Your task to perform on an android device: What is the news today? Image 0: 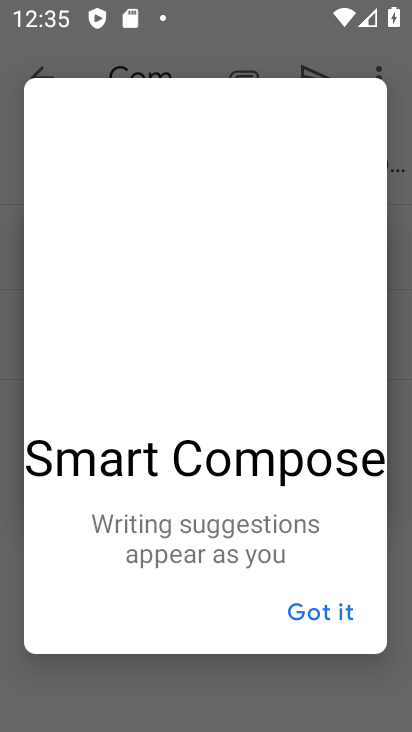
Step 0: press home button
Your task to perform on an android device: What is the news today? Image 1: 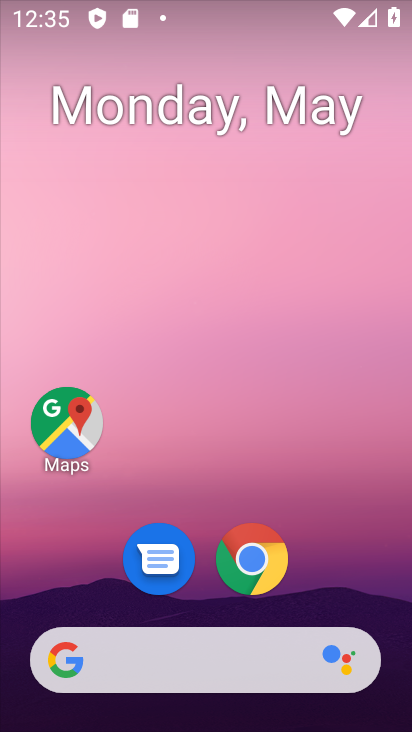
Step 1: click (288, 642)
Your task to perform on an android device: What is the news today? Image 2: 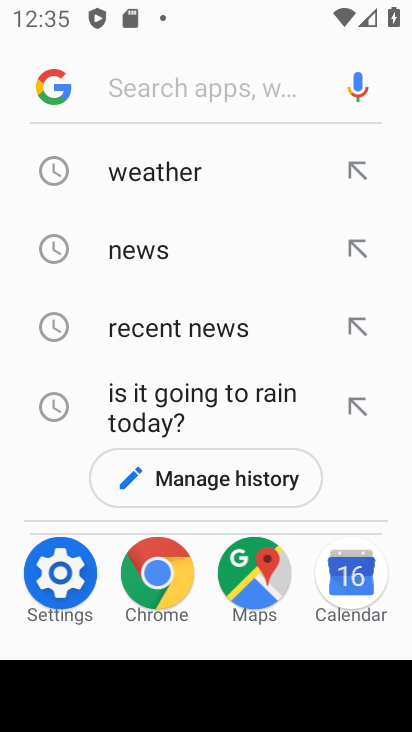
Step 2: type "What is the news today?"
Your task to perform on an android device: What is the news today? Image 3: 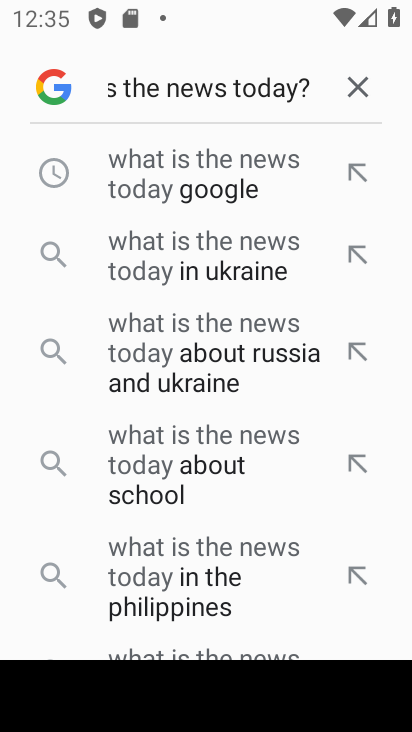
Step 3: click (238, 166)
Your task to perform on an android device: What is the news today? Image 4: 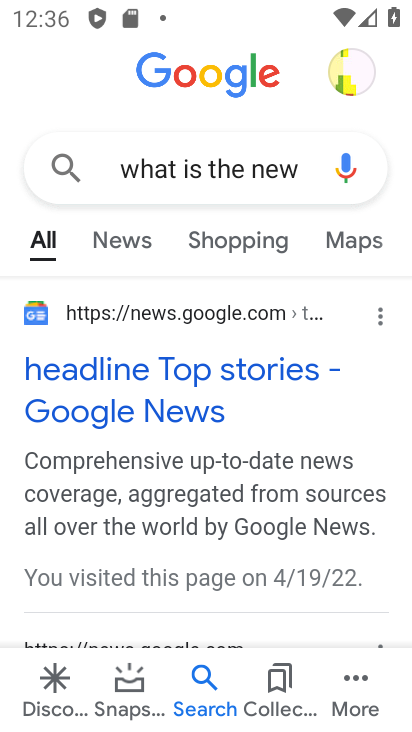
Step 4: task complete